Your task to perform on an android device: open app "Microsoft Outlook" (install if not already installed) and enter user name: "brand@gmail.com" and password: "persuasiveness" Image 0: 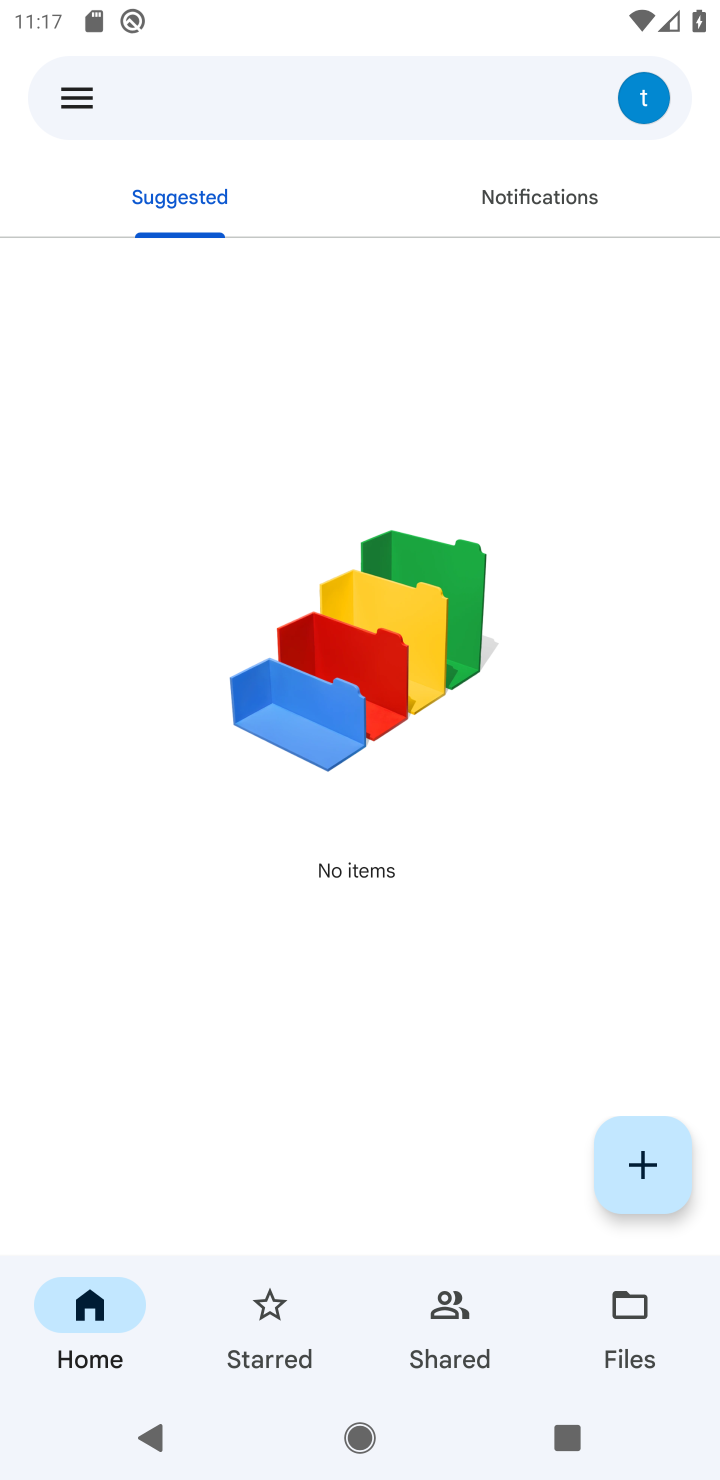
Step 0: press home button
Your task to perform on an android device: open app "Microsoft Outlook" (install if not already installed) and enter user name: "brand@gmail.com" and password: "persuasiveness" Image 1: 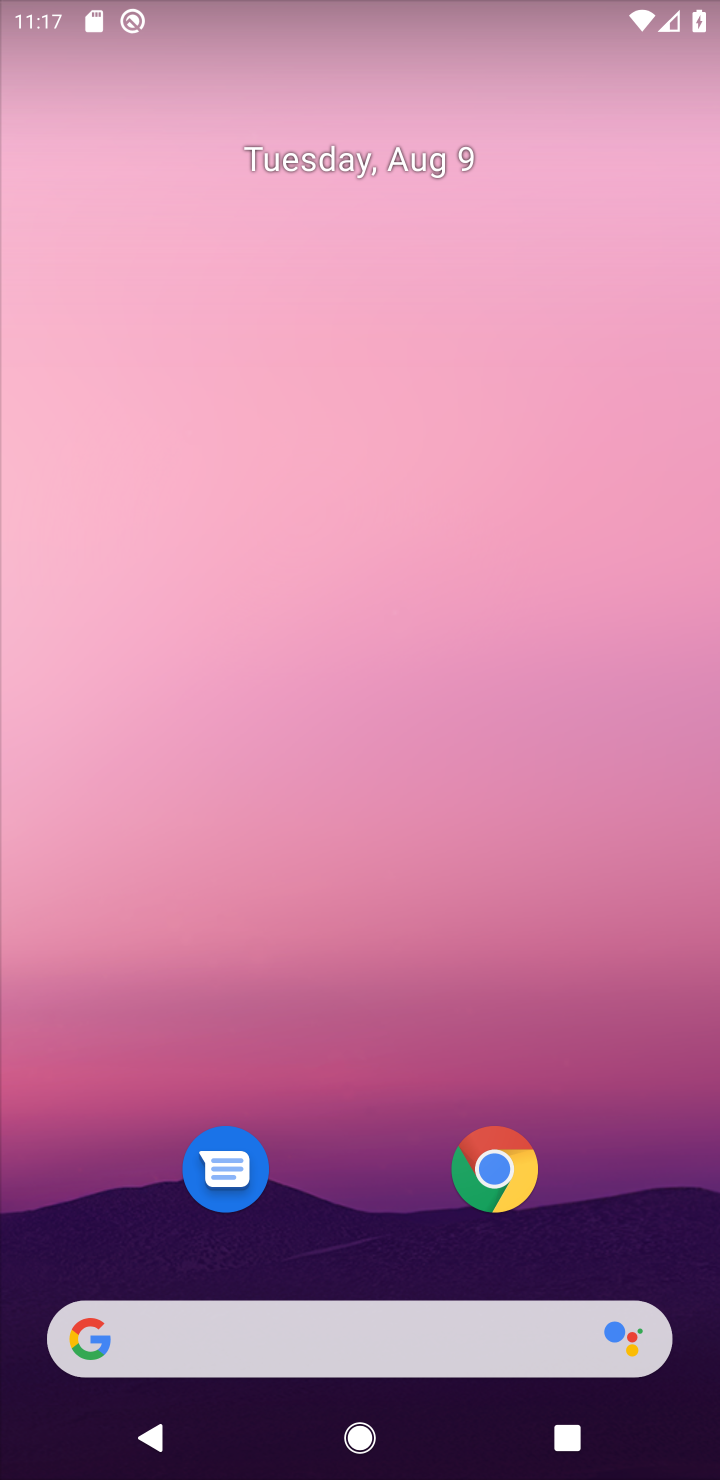
Step 1: press home button
Your task to perform on an android device: open app "Microsoft Outlook" (install if not already installed) and enter user name: "brand@gmail.com" and password: "persuasiveness" Image 2: 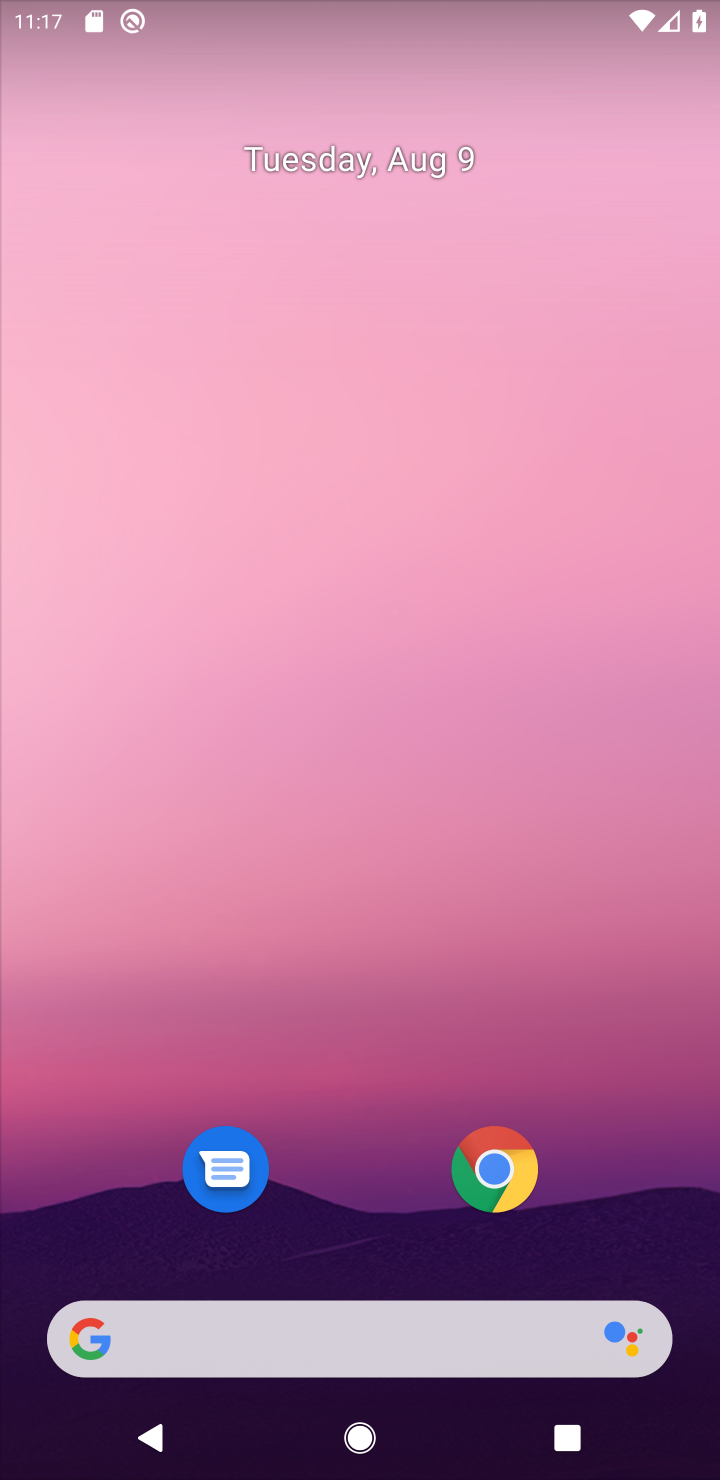
Step 2: drag from (629, 1128) to (621, 113)
Your task to perform on an android device: open app "Microsoft Outlook" (install if not already installed) and enter user name: "brand@gmail.com" and password: "persuasiveness" Image 3: 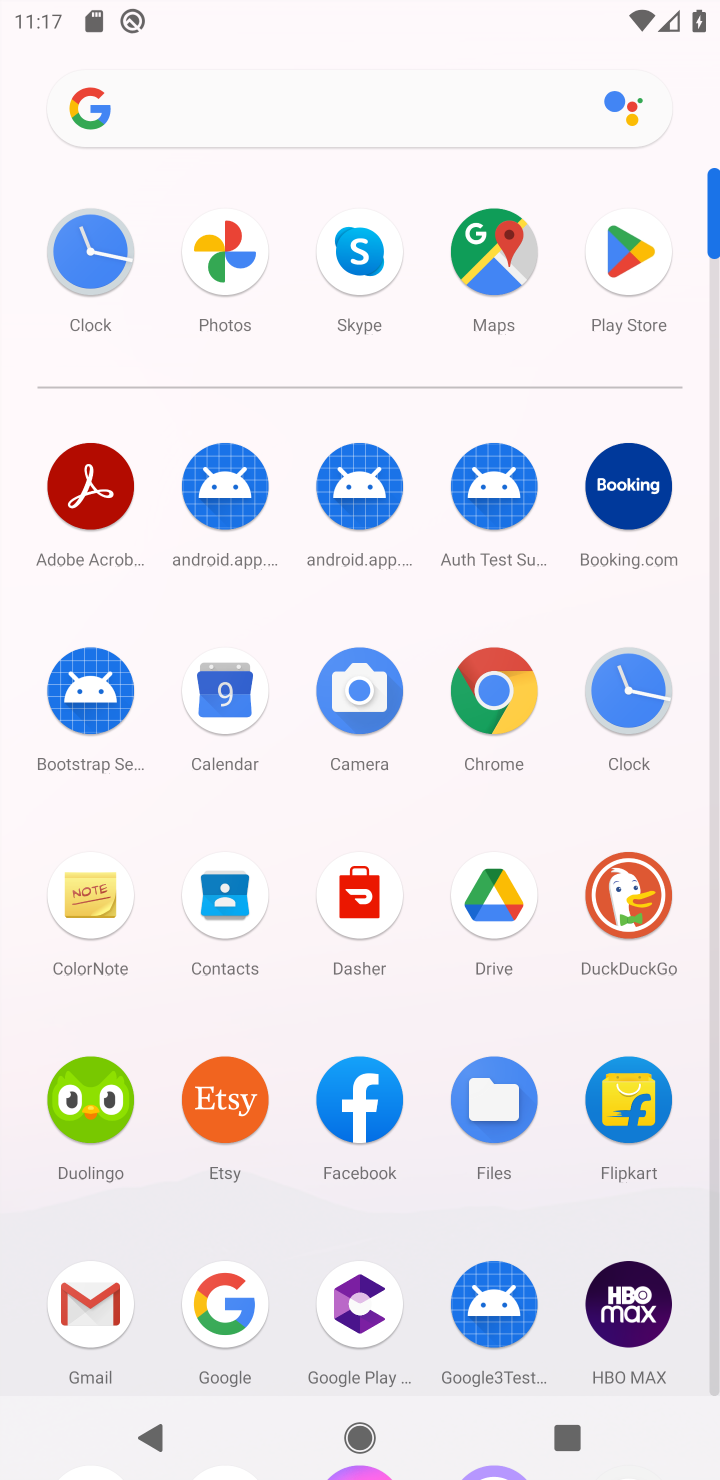
Step 3: click (615, 251)
Your task to perform on an android device: open app "Microsoft Outlook" (install if not already installed) and enter user name: "brand@gmail.com" and password: "persuasiveness" Image 4: 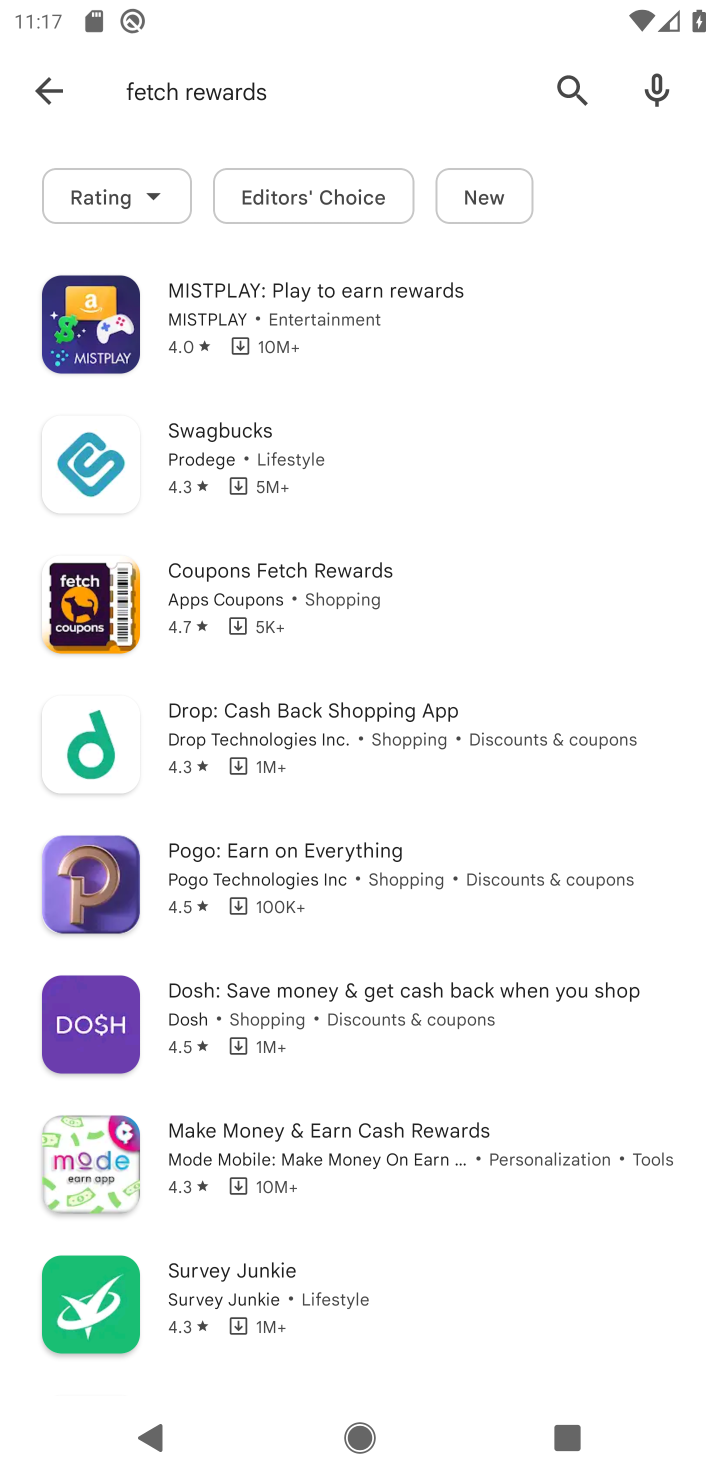
Step 4: click (572, 71)
Your task to perform on an android device: open app "Microsoft Outlook" (install if not already installed) and enter user name: "brand@gmail.com" and password: "persuasiveness" Image 5: 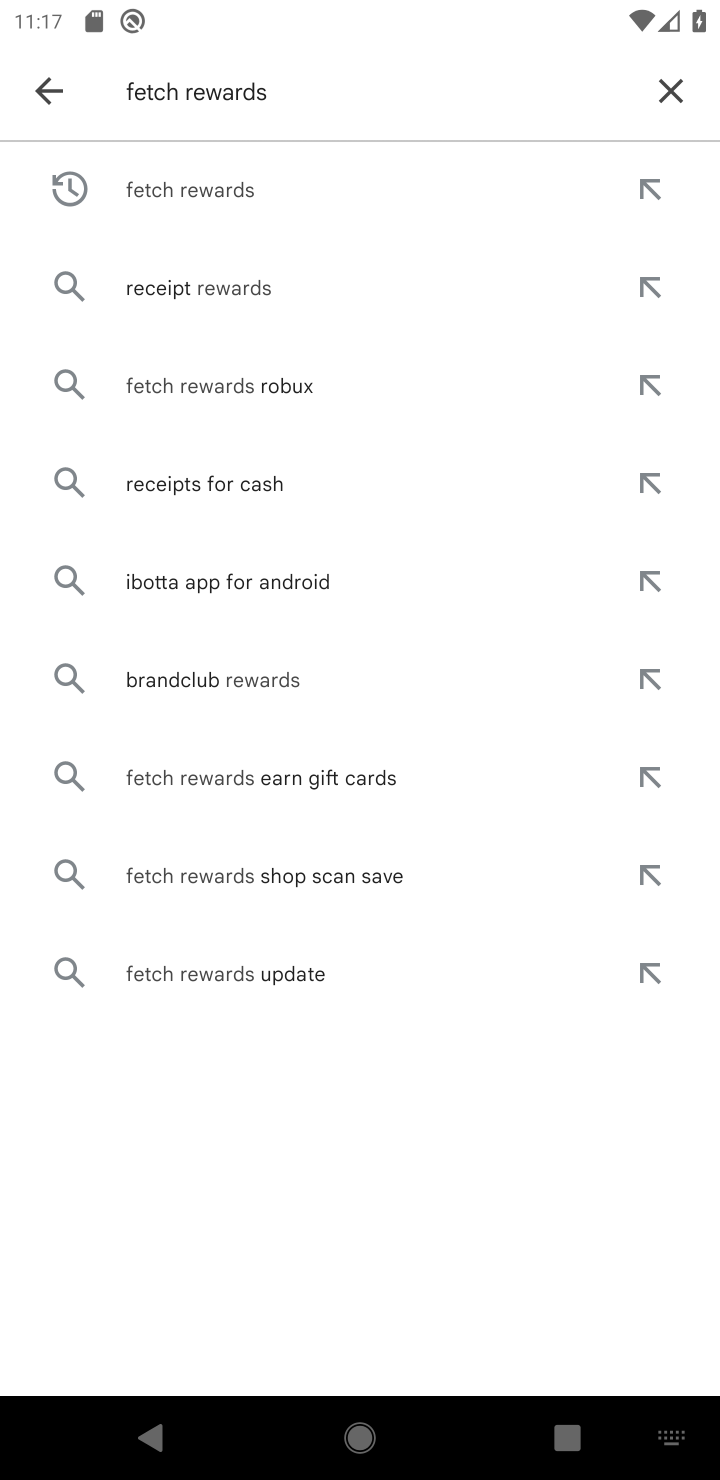
Step 5: click (666, 78)
Your task to perform on an android device: open app "Microsoft Outlook" (install if not already installed) and enter user name: "brand@gmail.com" and password: "persuasiveness" Image 6: 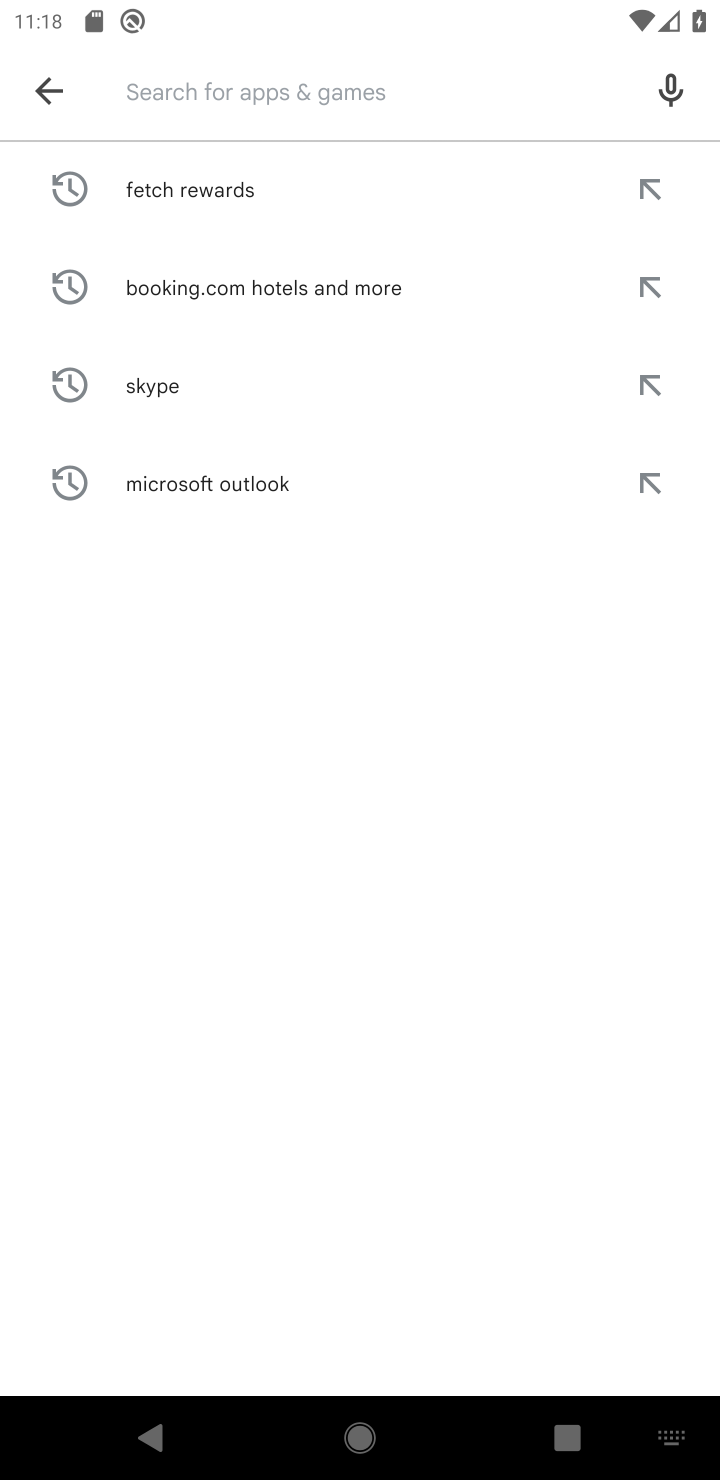
Step 6: type "microsoft outlook"
Your task to perform on an android device: open app "Microsoft Outlook" (install if not already installed) and enter user name: "brand@gmail.com" and password: "persuasiveness" Image 7: 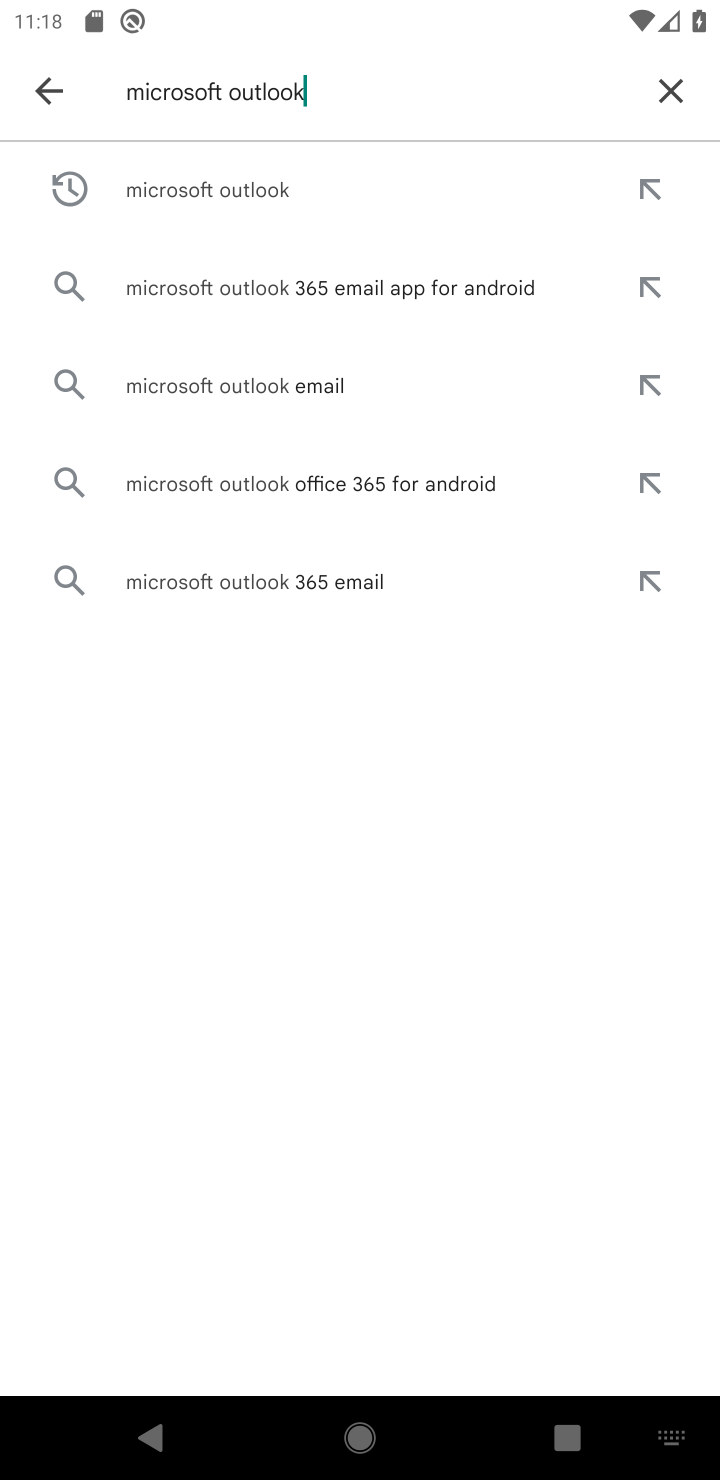
Step 7: click (323, 180)
Your task to perform on an android device: open app "Microsoft Outlook" (install if not already installed) and enter user name: "brand@gmail.com" and password: "persuasiveness" Image 8: 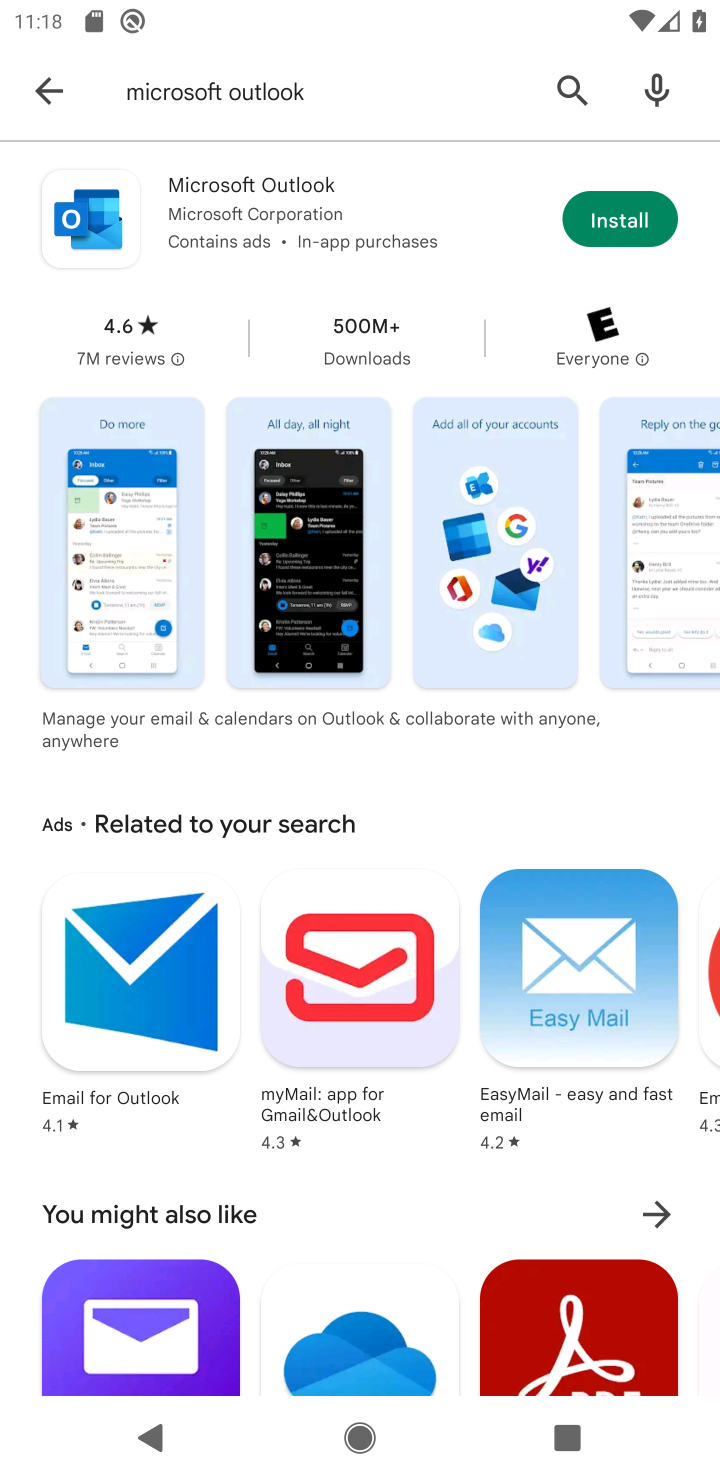
Step 8: click (627, 220)
Your task to perform on an android device: open app "Microsoft Outlook" (install if not already installed) and enter user name: "brand@gmail.com" and password: "persuasiveness" Image 9: 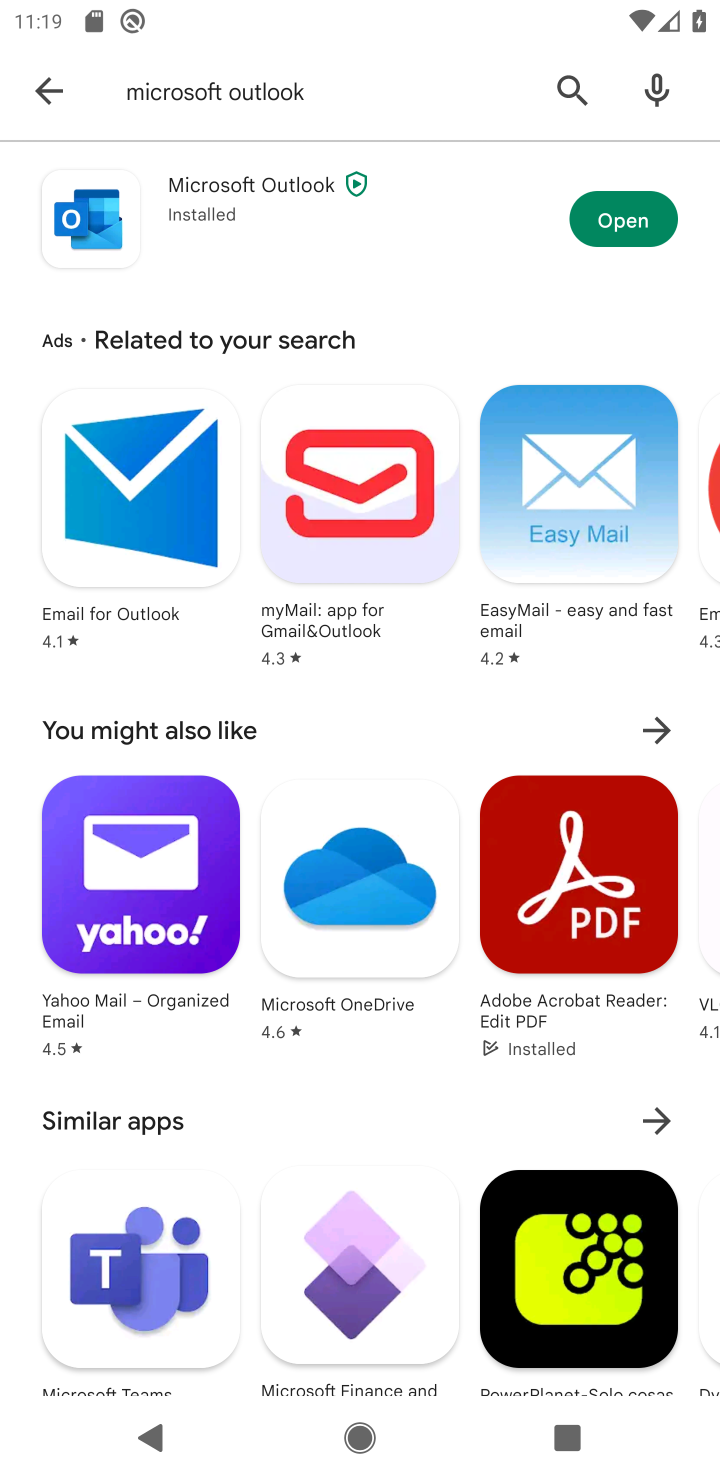
Step 9: click (629, 217)
Your task to perform on an android device: open app "Microsoft Outlook" (install if not already installed) and enter user name: "brand@gmail.com" and password: "persuasiveness" Image 10: 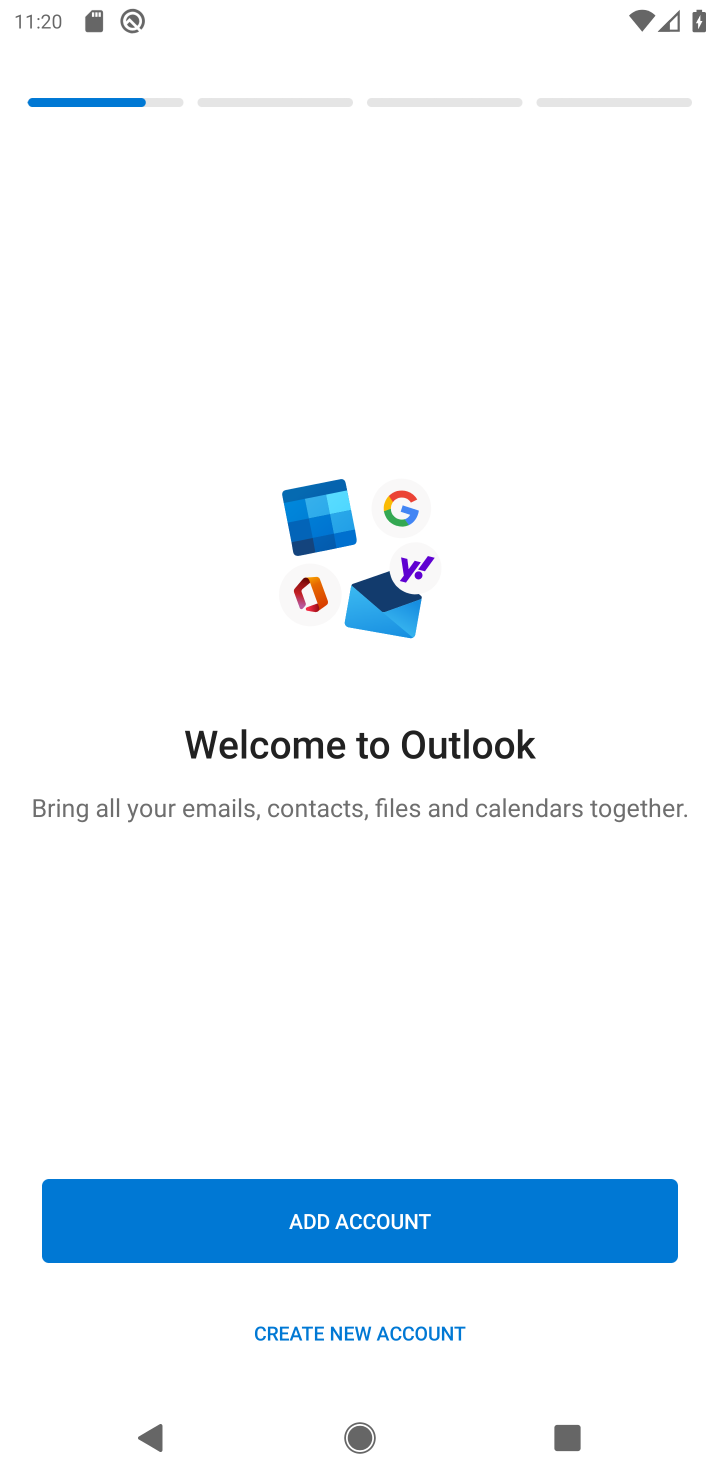
Step 10: click (447, 1215)
Your task to perform on an android device: open app "Microsoft Outlook" (install if not already installed) and enter user name: "brand@gmail.com" and password: "persuasiveness" Image 11: 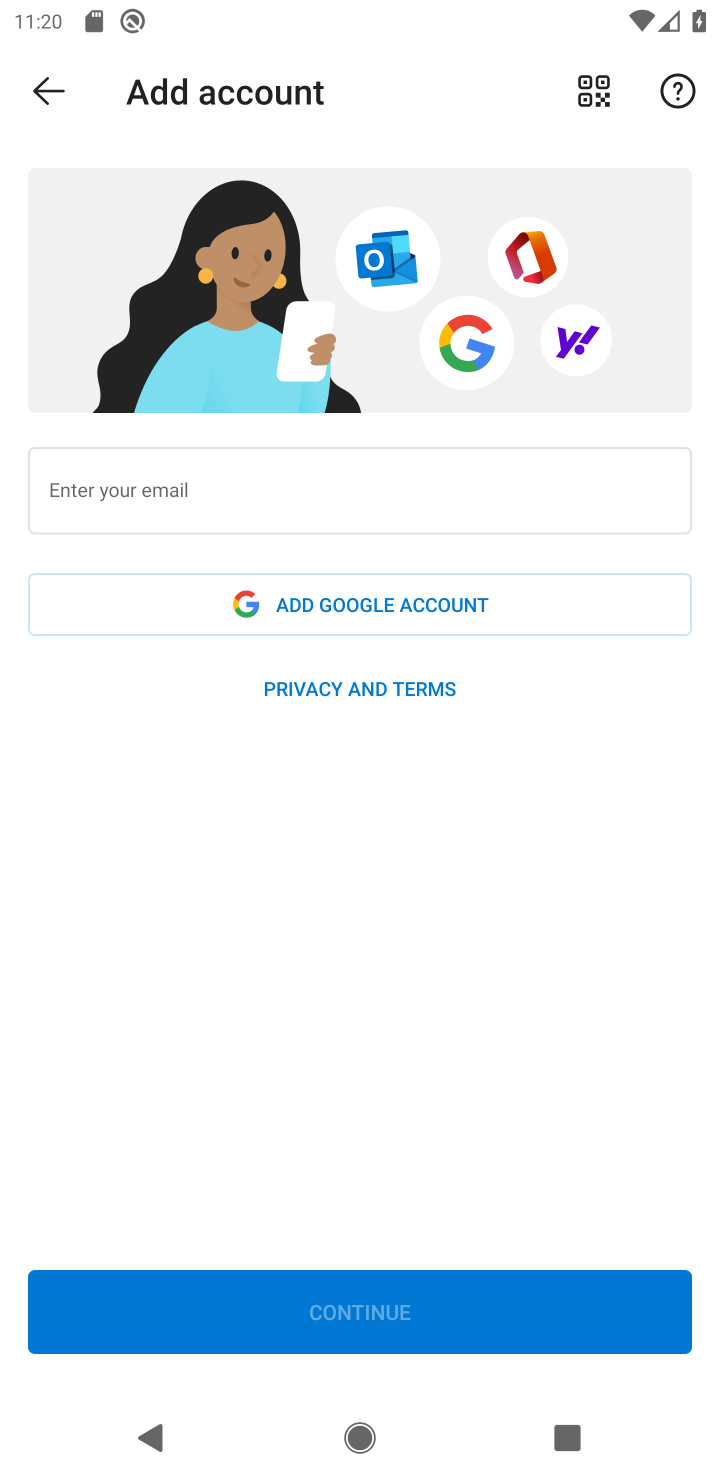
Step 11: click (199, 469)
Your task to perform on an android device: open app "Microsoft Outlook" (install if not already installed) and enter user name: "brand@gmail.com" and password: "persuasiveness" Image 12: 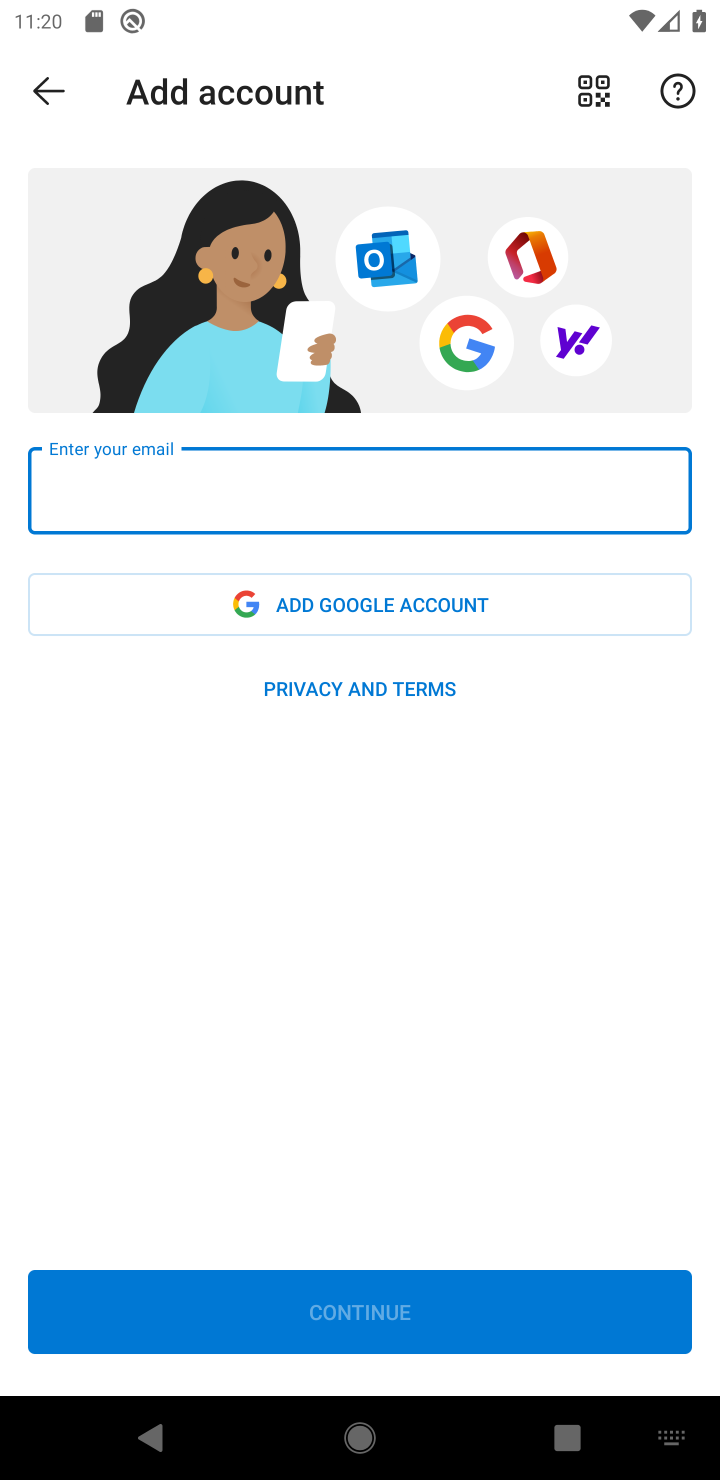
Step 12: type "brand@gmail.com"
Your task to perform on an android device: open app "Microsoft Outlook" (install if not already installed) and enter user name: "brand@gmail.com" and password: "persuasiveness" Image 13: 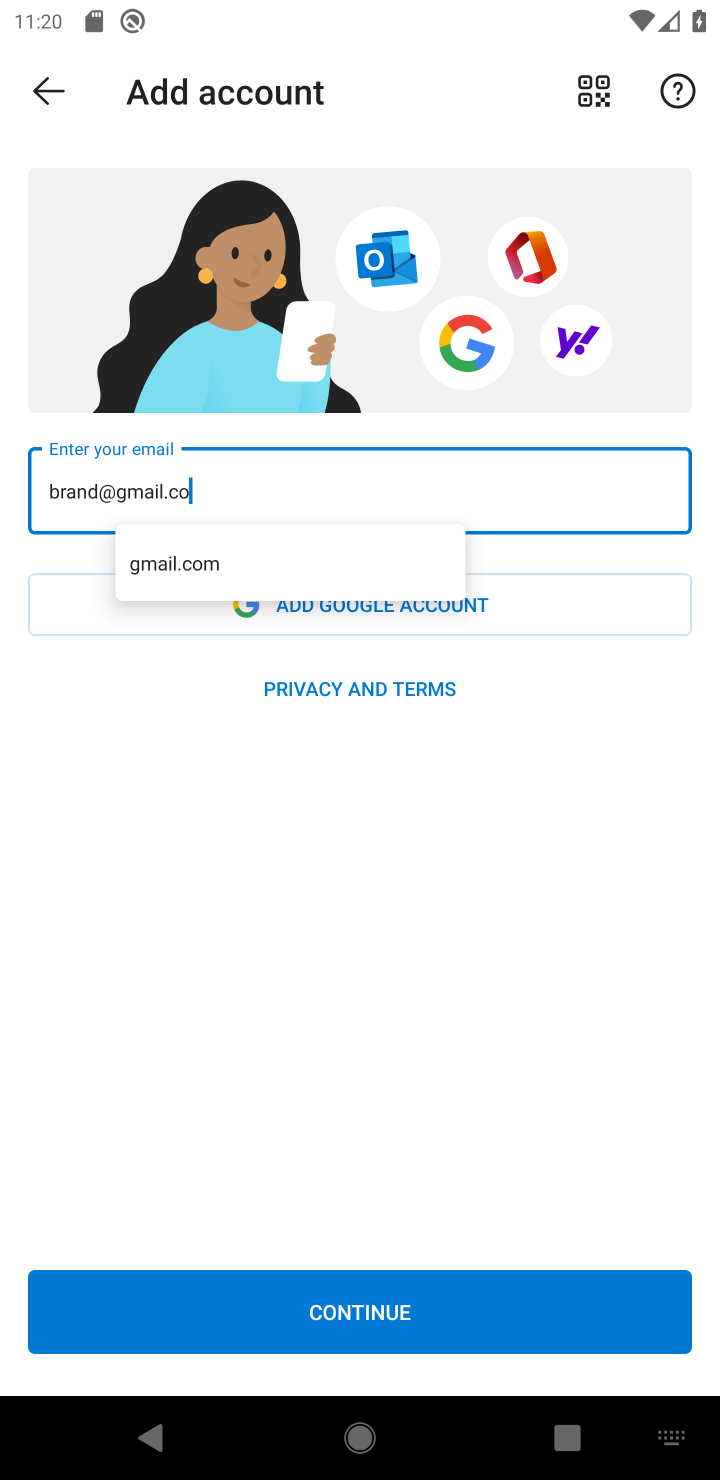
Step 13: press enter
Your task to perform on an android device: open app "Microsoft Outlook" (install if not already installed) and enter user name: "brand@gmail.com" and password: "persuasiveness" Image 14: 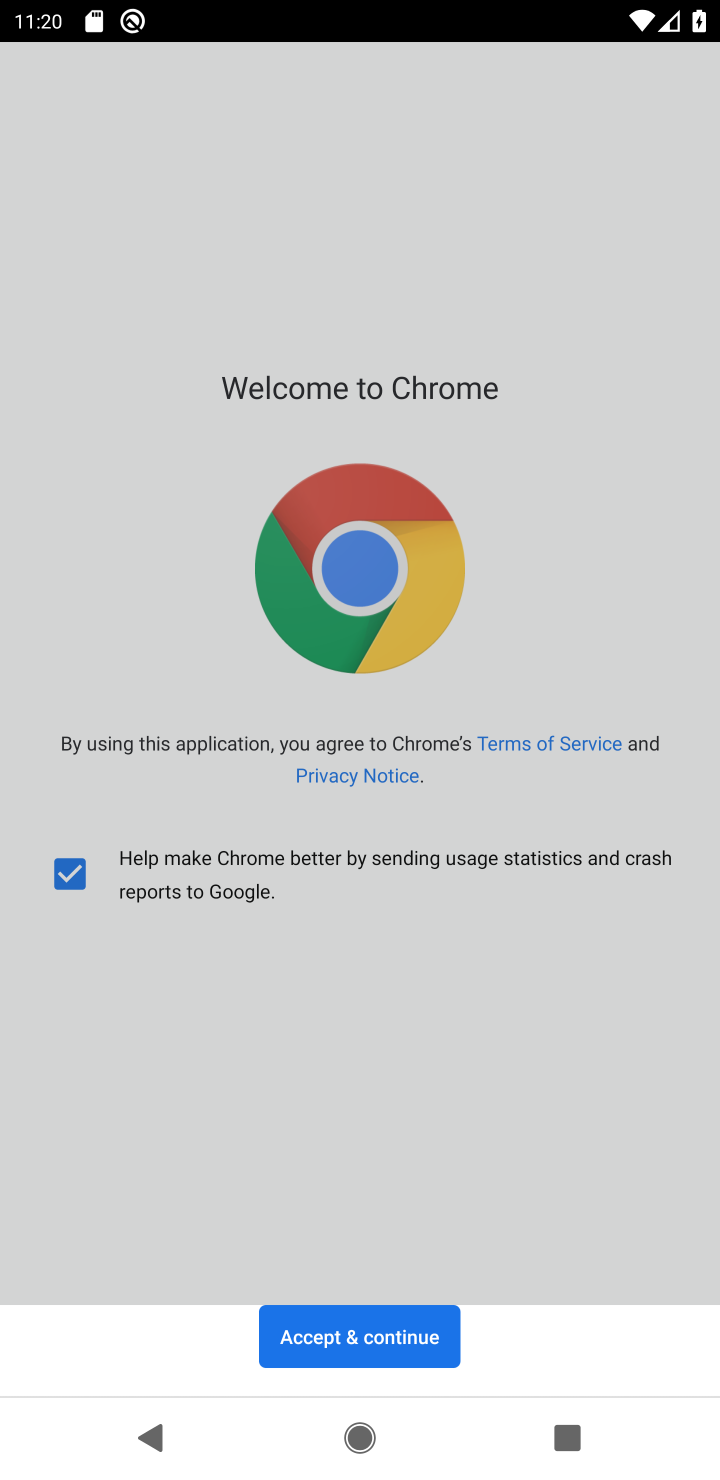
Step 14: click (378, 1344)
Your task to perform on an android device: open app "Microsoft Outlook" (install if not already installed) and enter user name: "brand@gmail.com" and password: "persuasiveness" Image 15: 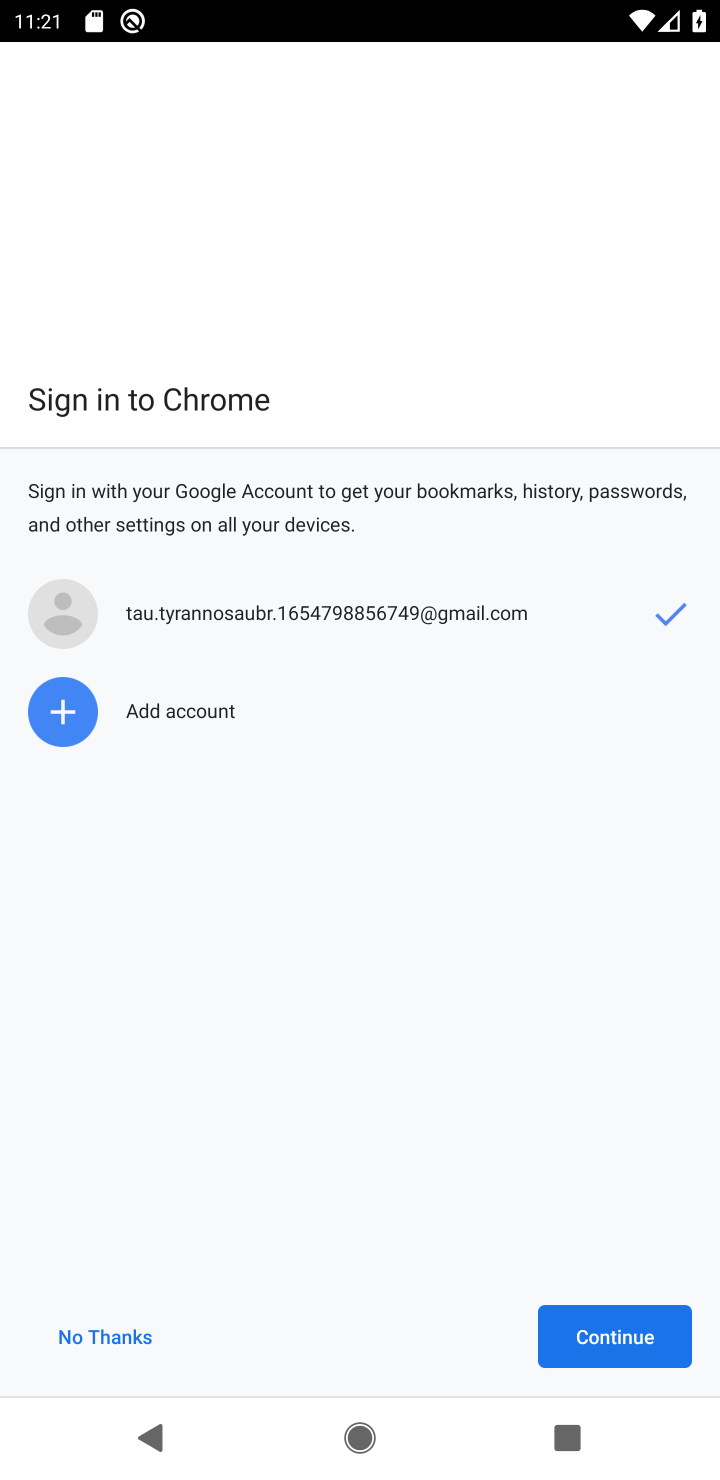
Step 15: click (592, 1330)
Your task to perform on an android device: open app "Microsoft Outlook" (install if not already installed) and enter user name: "brand@gmail.com" and password: "persuasiveness" Image 16: 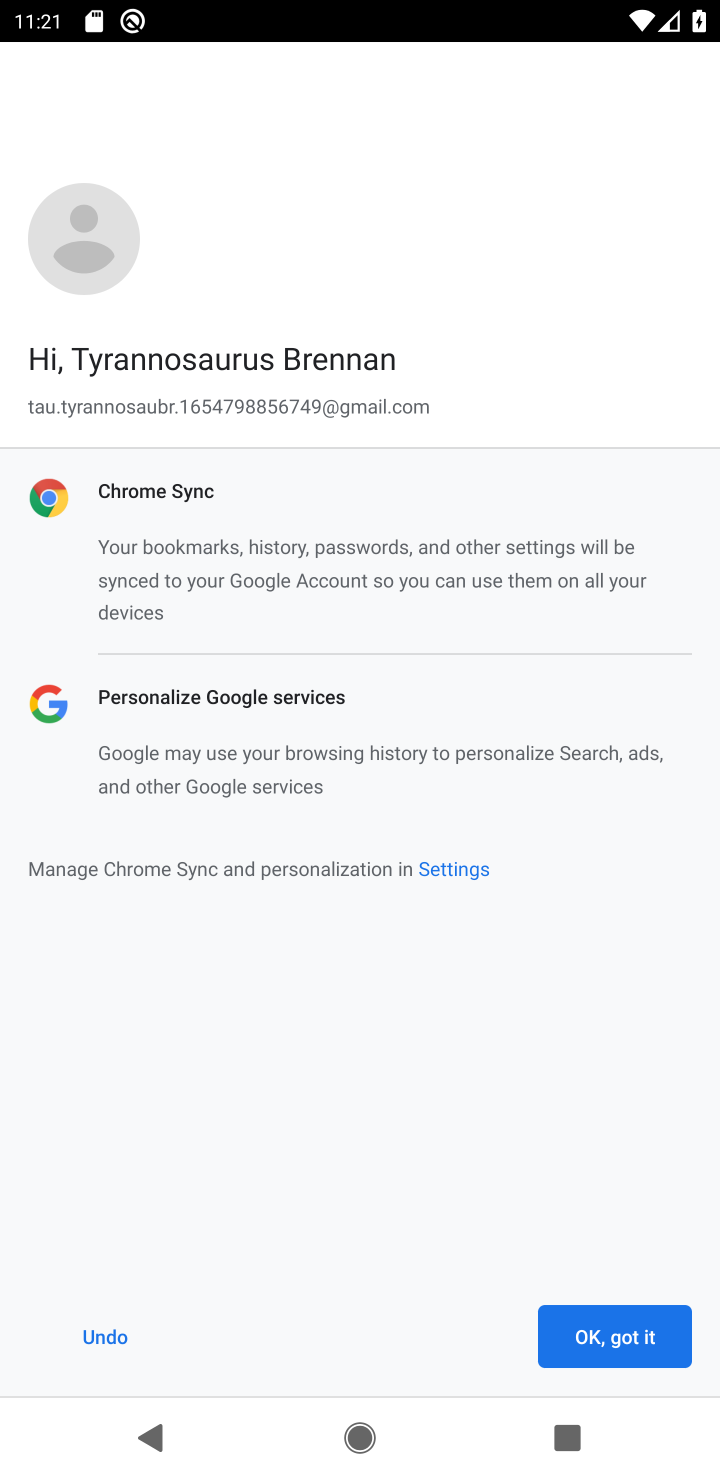
Step 16: click (623, 1337)
Your task to perform on an android device: open app "Microsoft Outlook" (install if not already installed) and enter user name: "brand@gmail.com" and password: "persuasiveness" Image 17: 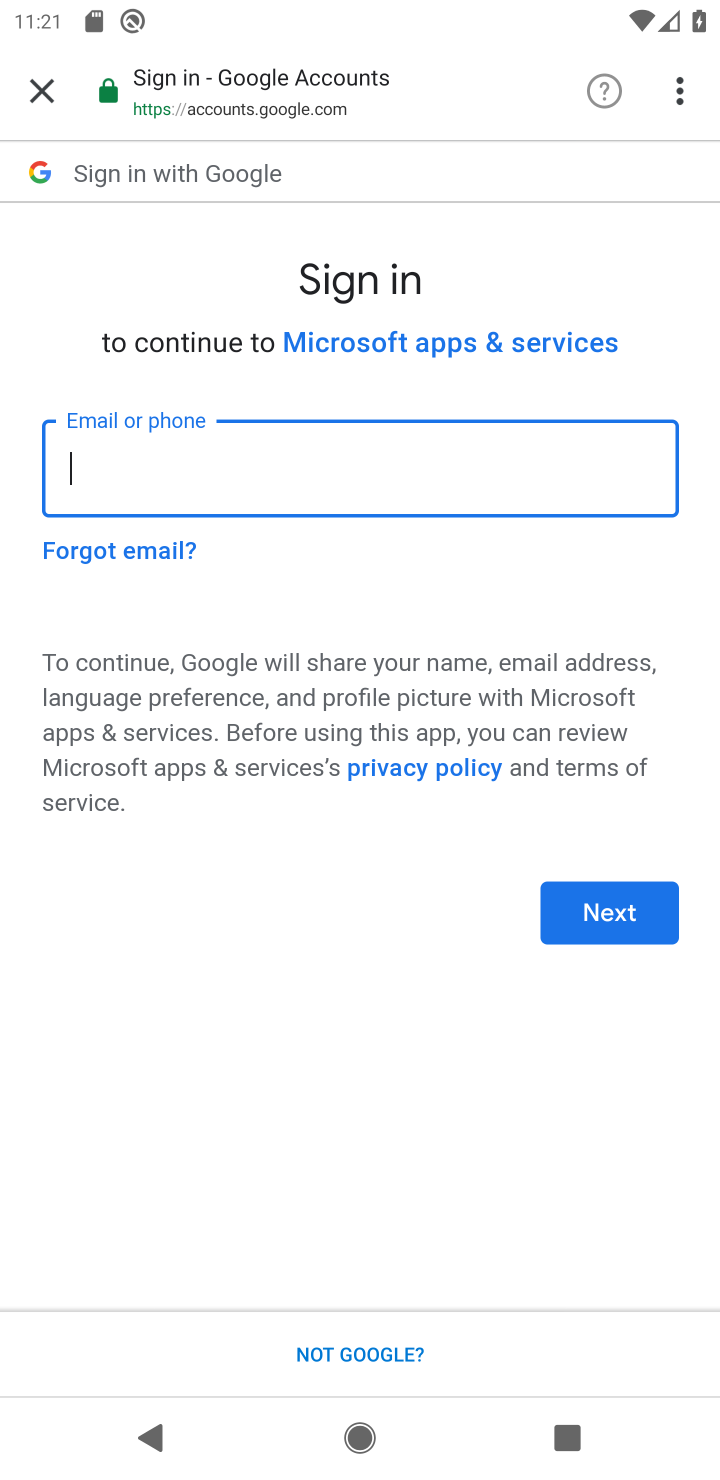
Step 17: click (261, 483)
Your task to perform on an android device: open app "Microsoft Outlook" (install if not already installed) and enter user name: "brand@gmail.com" and password: "persuasiveness" Image 18: 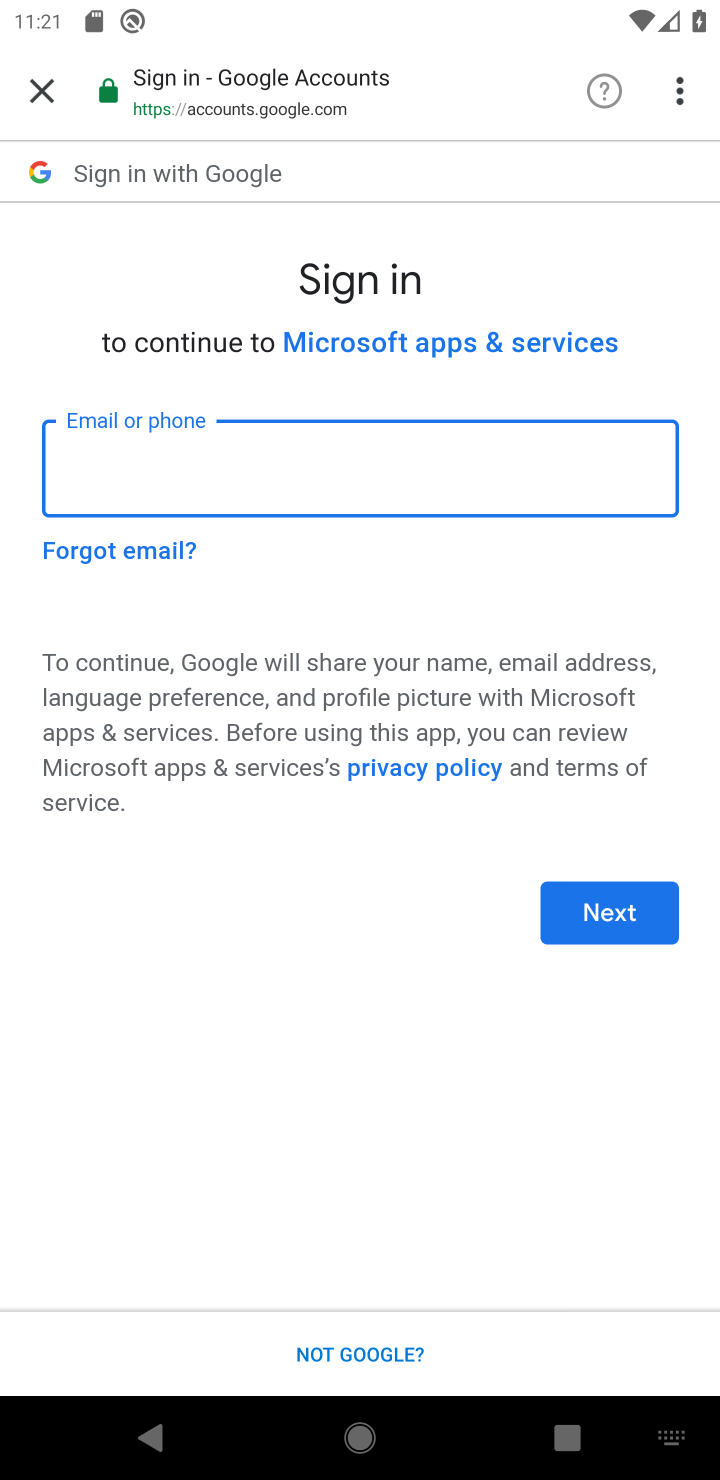
Step 18: type "brand@gmail.com"
Your task to perform on an android device: open app "Microsoft Outlook" (install if not already installed) and enter user name: "brand@gmail.com" and password: "persuasiveness" Image 19: 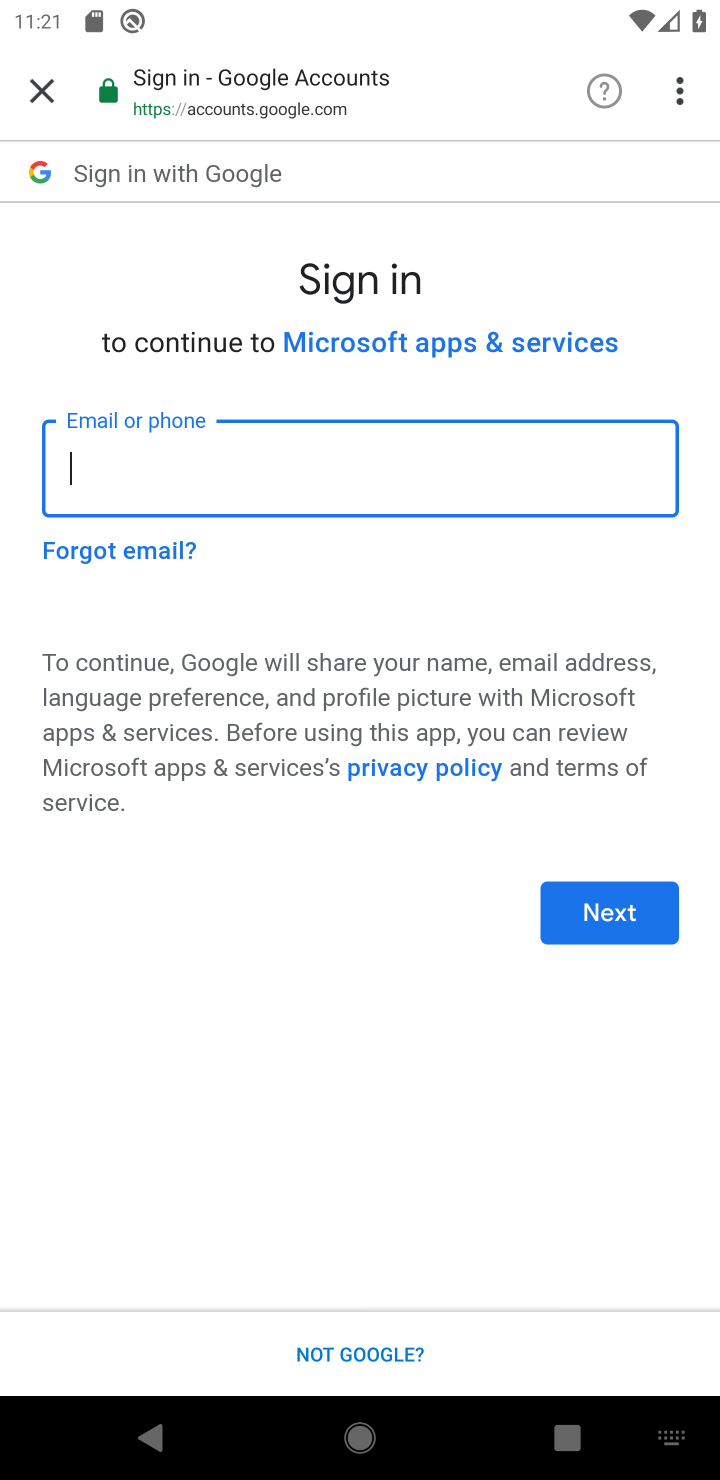
Step 19: press enter
Your task to perform on an android device: open app "Microsoft Outlook" (install if not already installed) and enter user name: "brand@gmail.com" and password: "persuasiveness" Image 20: 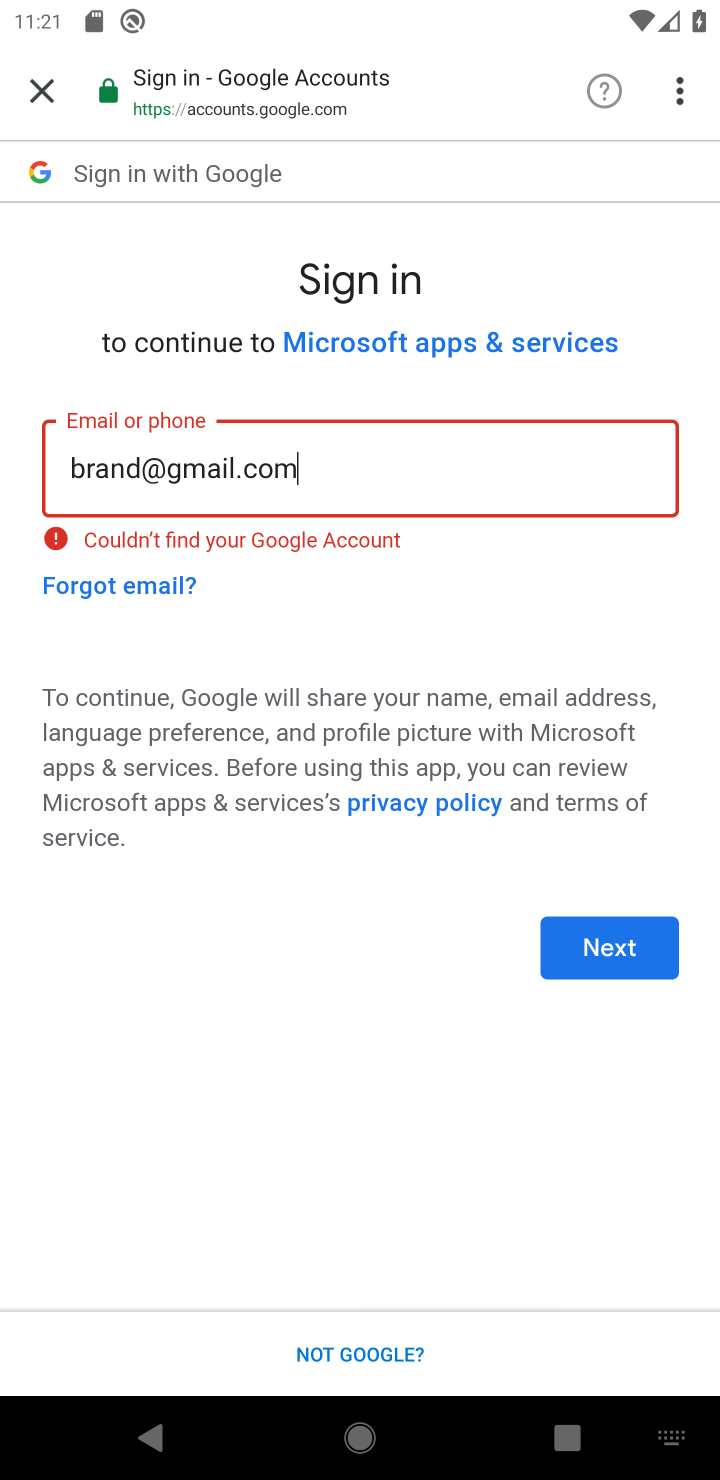
Step 20: task complete